Your task to perform on an android device: turn off location Image 0: 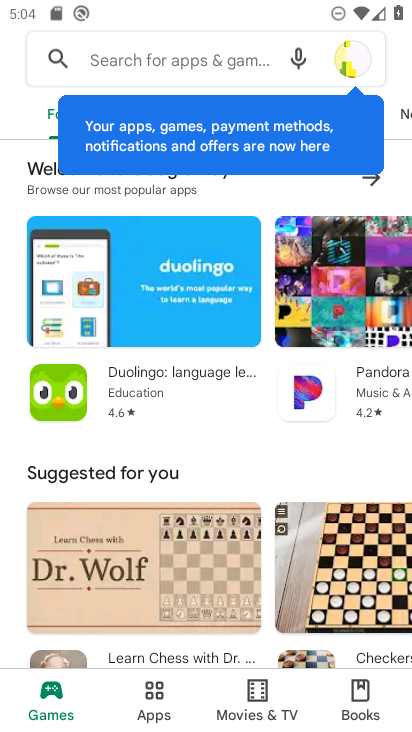
Step 0: press back button
Your task to perform on an android device: turn off location Image 1: 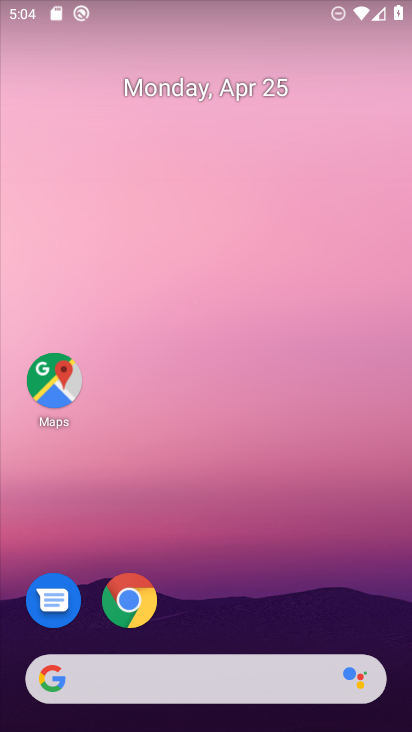
Step 1: drag from (227, 555) to (210, 28)
Your task to perform on an android device: turn off location Image 2: 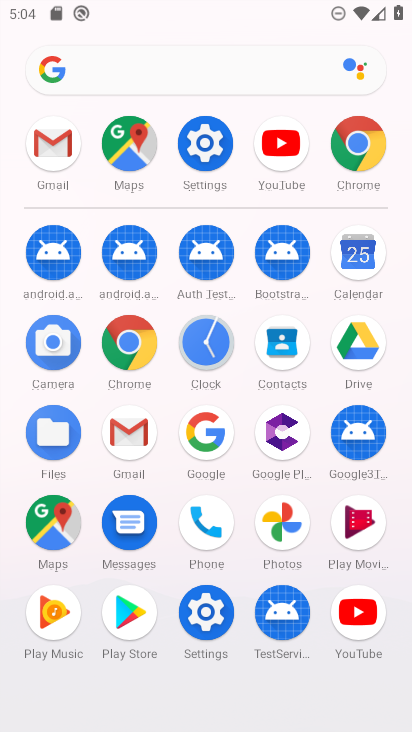
Step 2: click (202, 612)
Your task to perform on an android device: turn off location Image 3: 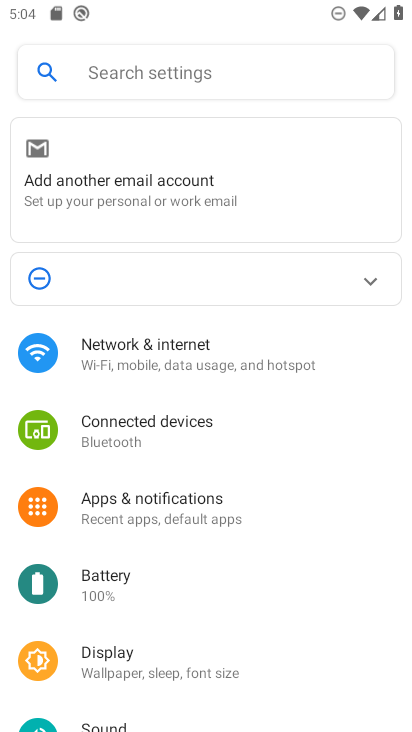
Step 3: drag from (263, 644) to (271, 123)
Your task to perform on an android device: turn off location Image 4: 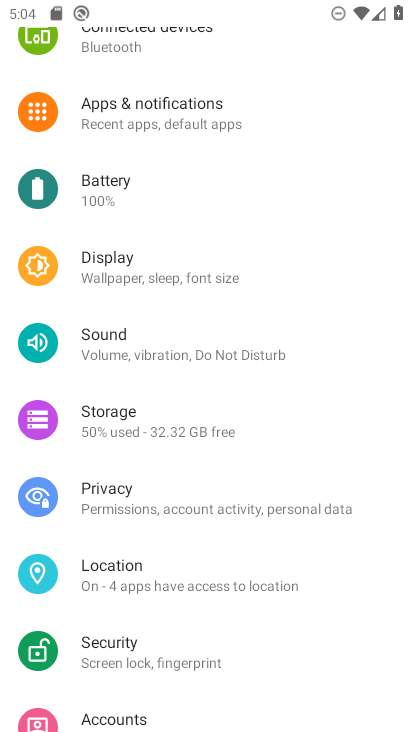
Step 4: click (143, 579)
Your task to perform on an android device: turn off location Image 5: 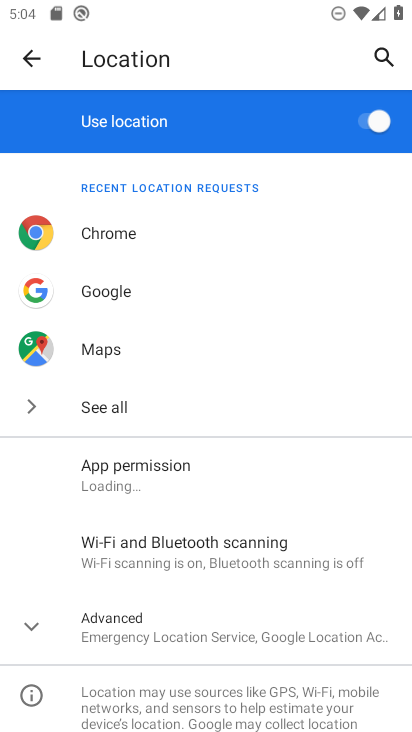
Step 5: click (85, 623)
Your task to perform on an android device: turn off location Image 6: 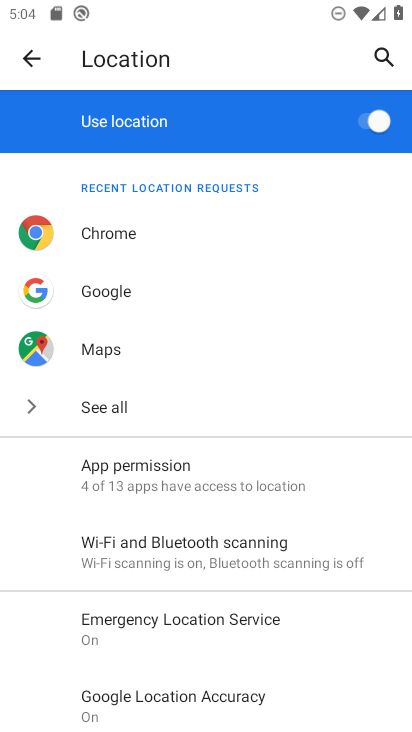
Step 6: click (369, 121)
Your task to perform on an android device: turn off location Image 7: 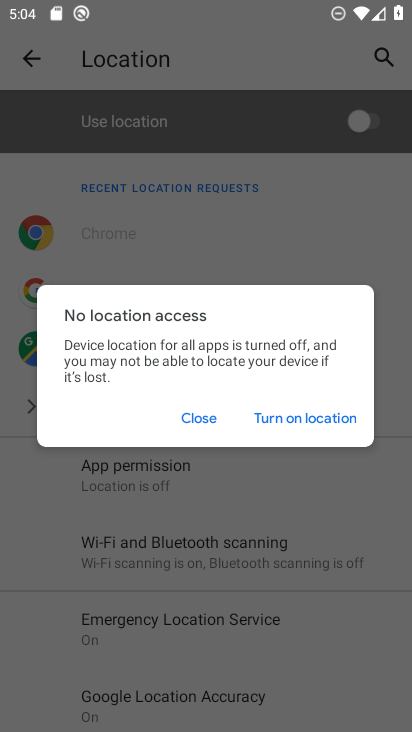
Step 7: click (209, 413)
Your task to perform on an android device: turn off location Image 8: 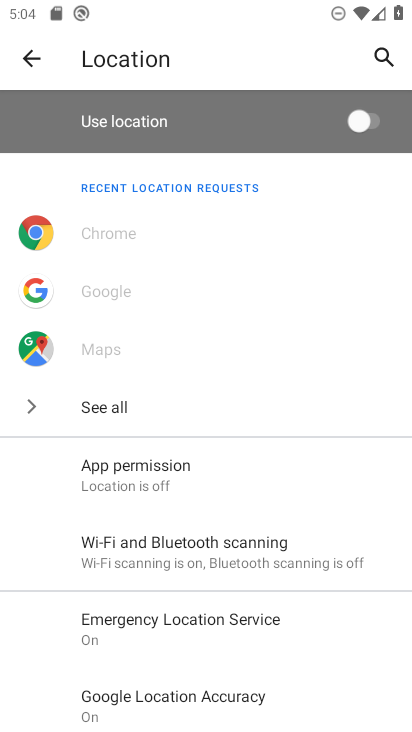
Step 8: task complete